Your task to perform on an android device: Open display settings Image 0: 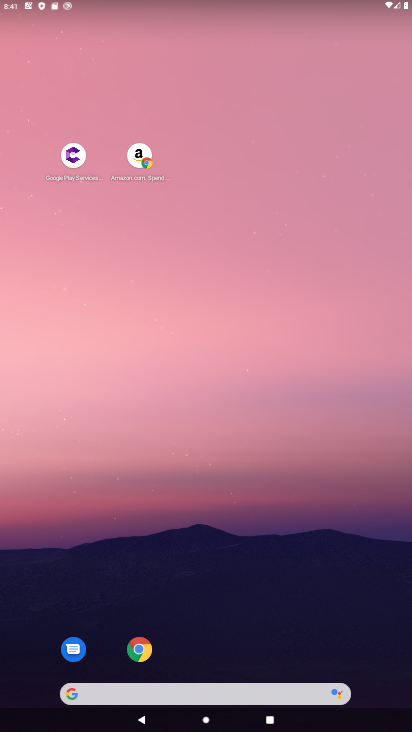
Step 0: drag from (214, 688) to (173, 17)
Your task to perform on an android device: Open display settings Image 1: 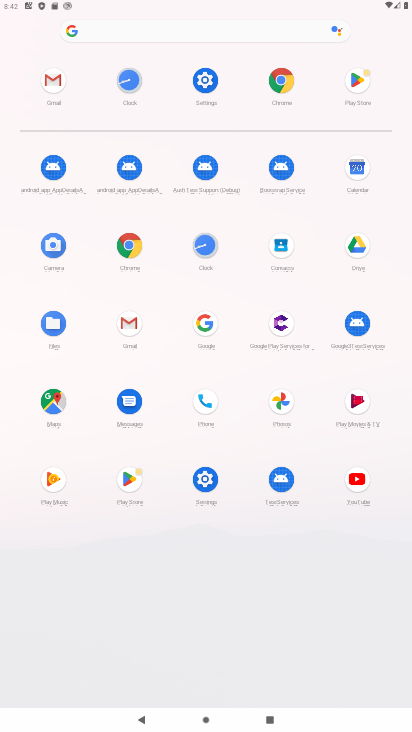
Step 1: click (205, 80)
Your task to perform on an android device: Open display settings Image 2: 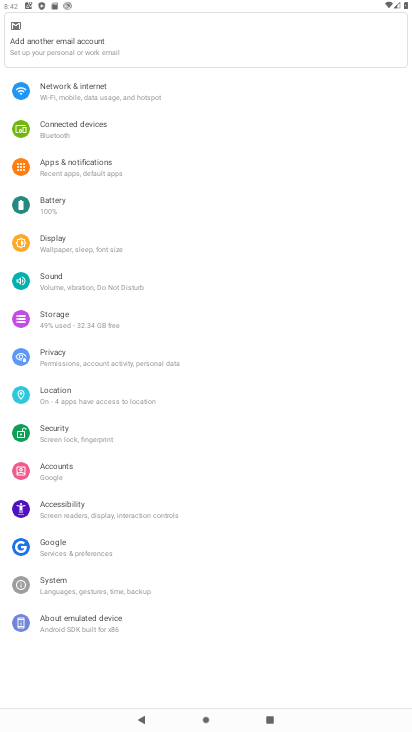
Step 2: click (49, 246)
Your task to perform on an android device: Open display settings Image 3: 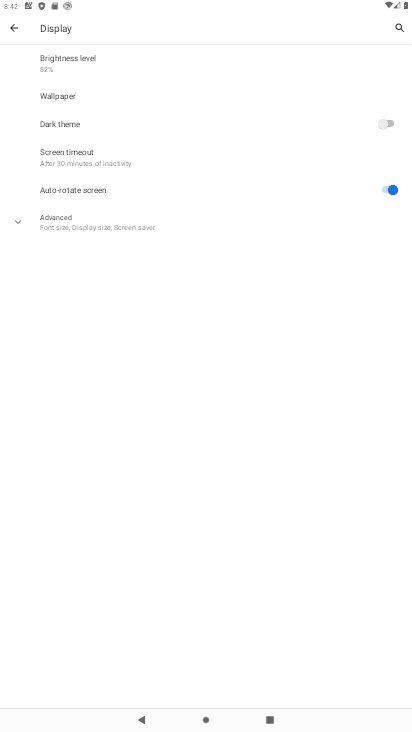
Step 3: task complete